Your task to perform on an android device: What's the weather today? Image 0: 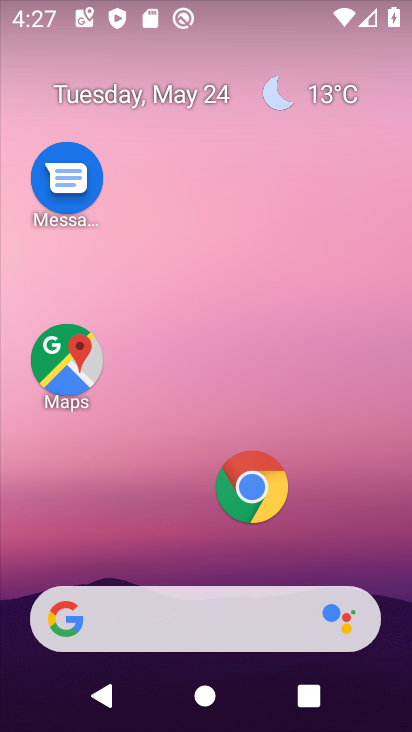
Step 0: drag from (246, 408) to (382, 16)
Your task to perform on an android device: What's the weather today? Image 1: 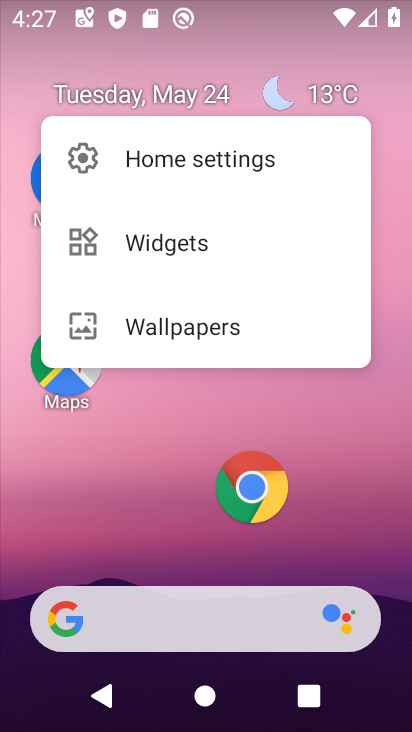
Step 1: drag from (310, 554) to (229, 196)
Your task to perform on an android device: What's the weather today? Image 2: 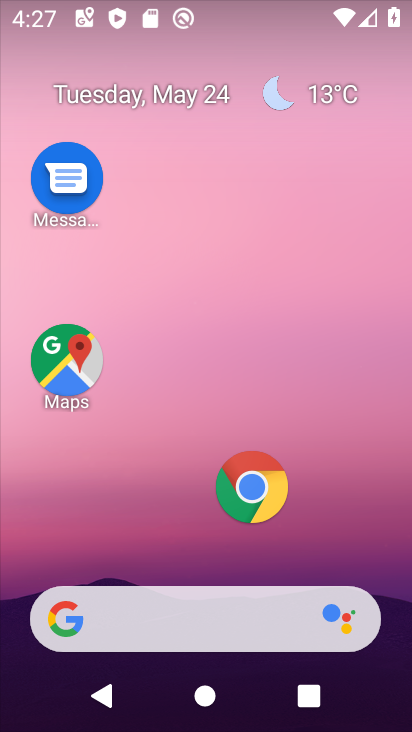
Step 2: drag from (184, 566) to (176, 206)
Your task to perform on an android device: What's the weather today? Image 3: 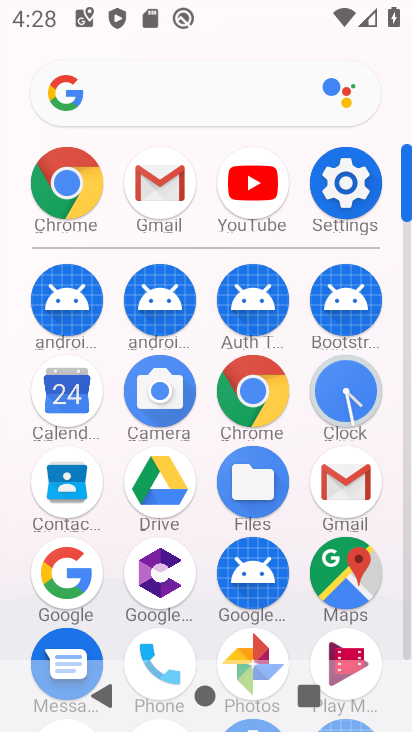
Step 3: click (68, 581)
Your task to perform on an android device: What's the weather today? Image 4: 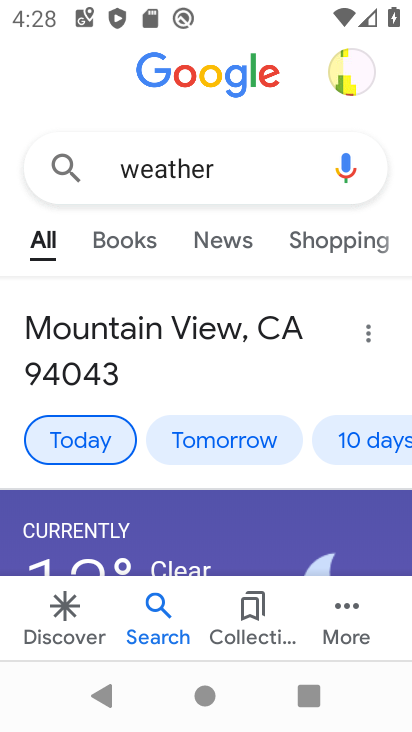
Step 4: task complete